Your task to perform on an android device: open chrome privacy settings Image 0: 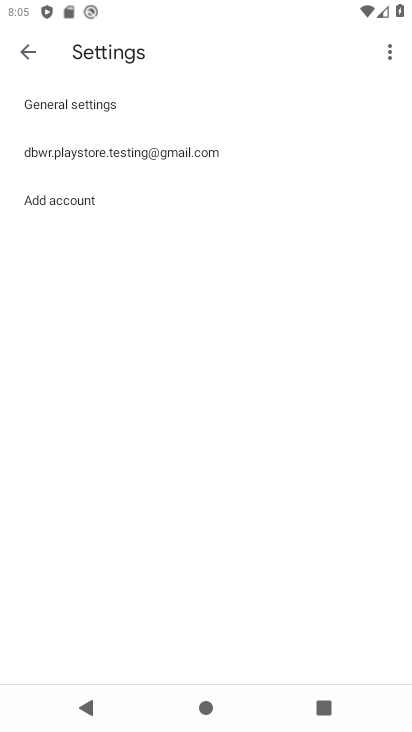
Step 0: press home button
Your task to perform on an android device: open chrome privacy settings Image 1: 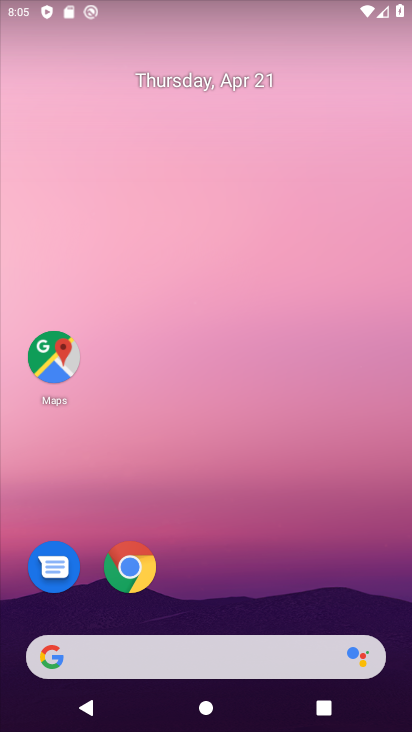
Step 1: drag from (199, 615) to (164, 55)
Your task to perform on an android device: open chrome privacy settings Image 2: 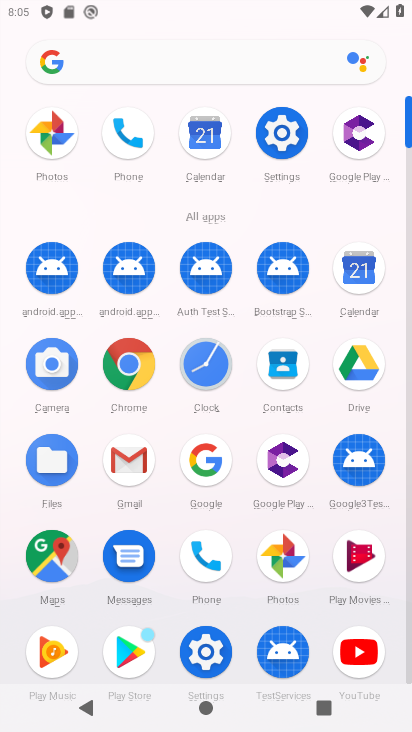
Step 2: click (135, 359)
Your task to perform on an android device: open chrome privacy settings Image 3: 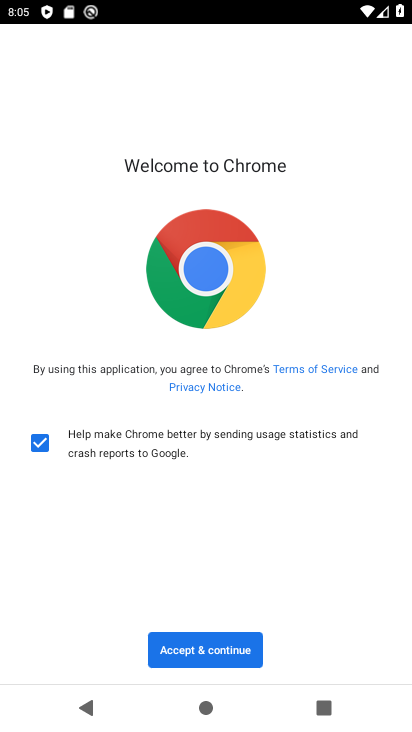
Step 3: click (244, 633)
Your task to perform on an android device: open chrome privacy settings Image 4: 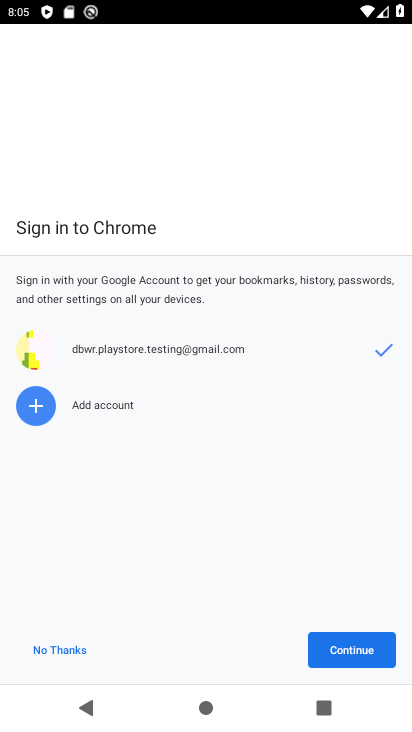
Step 4: click (357, 648)
Your task to perform on an android device: open chrome privacy settings Image 5: 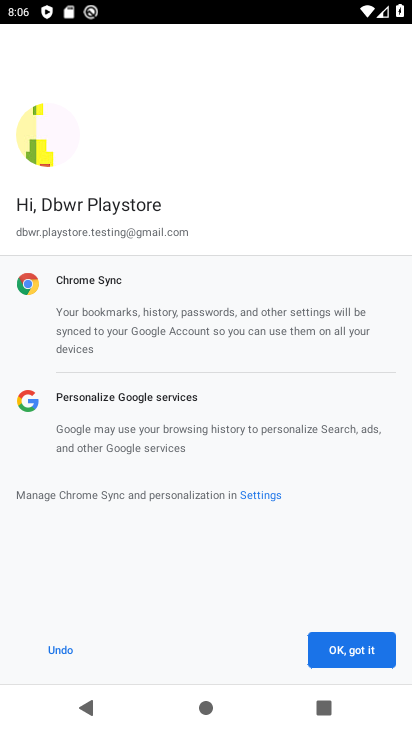
Step 5: click (356, 646)
Your task to perform on an android device: open chrome privacy settings Image 6: 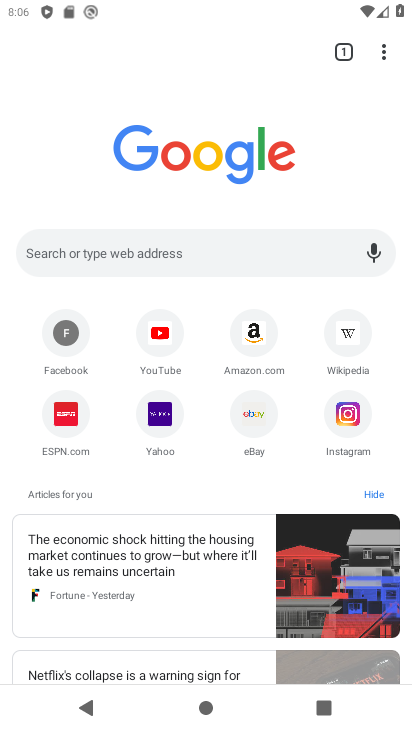
Step 6: drag from (380, 39) to (213, 442)
Your task to perform on an android device: open chrome privacy settings Image 7: 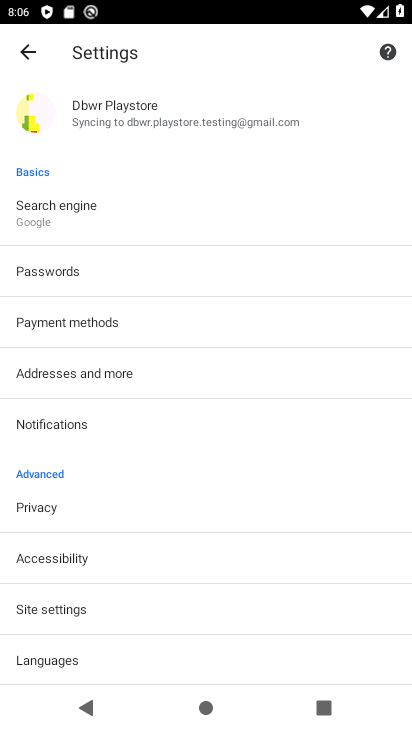
Step 7: drag from (229, 507) to (225, 326)
Your task to perform on an android device: open chrome privacy settings Image 8: 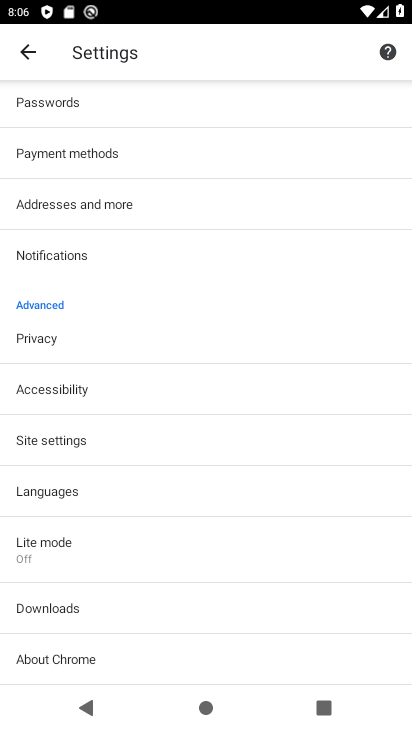
Step 8: click (33, 332)
Your task to perform on an android device: open chrome privacy settings Image 9: 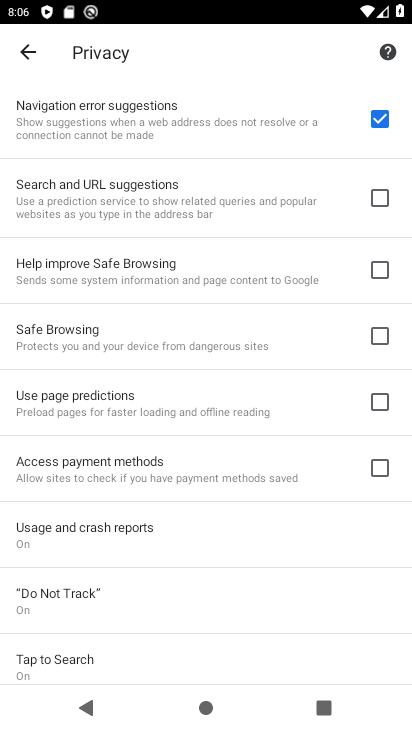
Step 9: task complete